Your task to perform on an android device: turn pop-ups on in chrome Image 0: 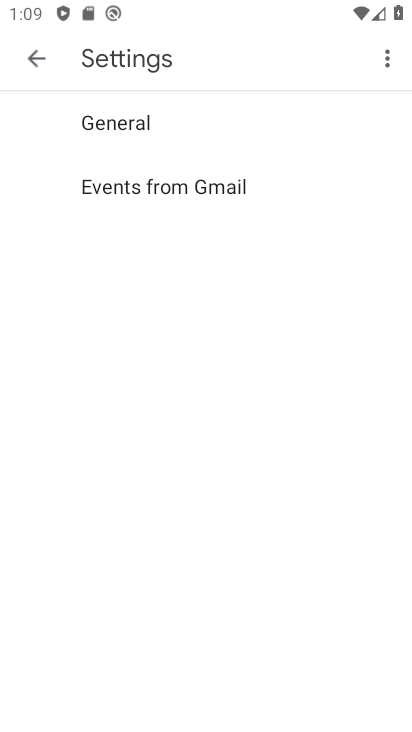
Step 0: press back button
Your task to perform on an android device: turn pop-ups on in chrome Image 1: 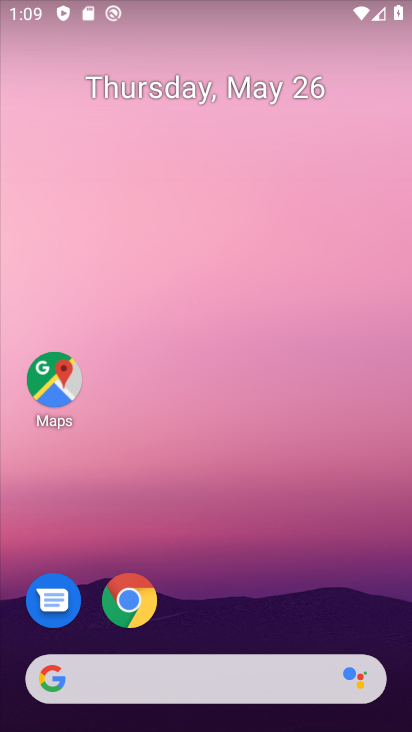
Step 1: click (128, 601)
Your task to perform on an android device: turn pop-ups on in chrome Image 2: 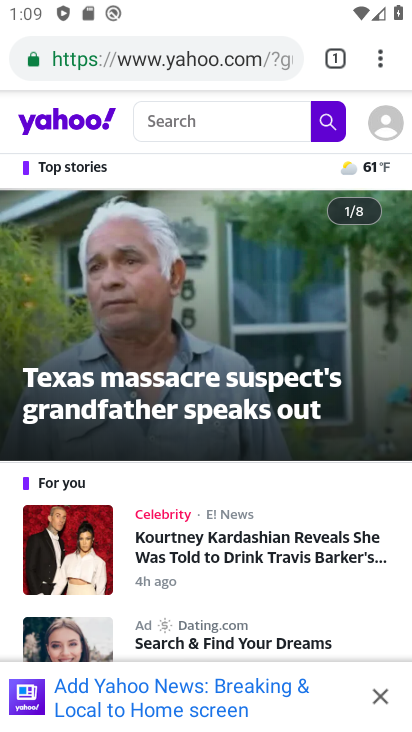
Step 2: click (382, 58)
Your task to perform on an android device: turn pop-ups on in chrome Image 3: 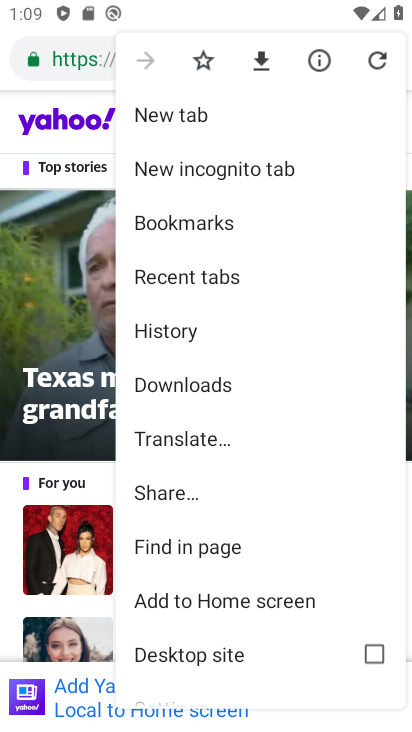
Step 3: drag from (167, 519) to (234, 402)
Your task to perform on an android device: turn pop-ups on in chrome Image 4: 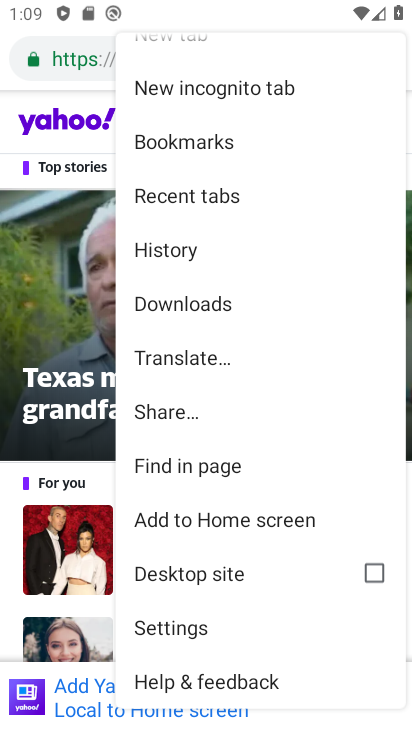
Step 4: click (186, 624)
Your task to perform on an android device: turn pop-ups on in chrome Image 5: 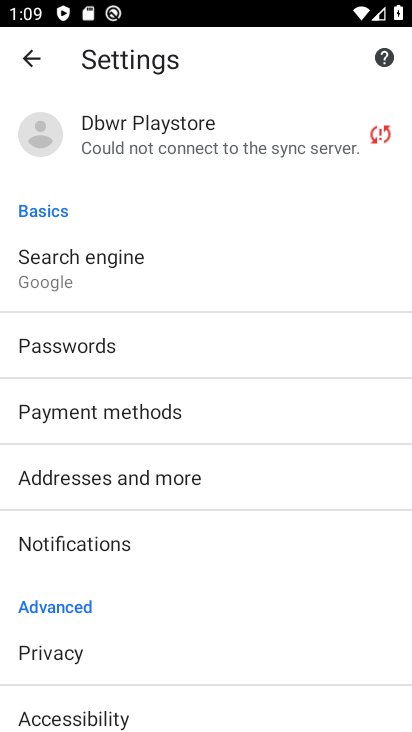
Step 5: drag from (117, 560) to (162, 434)
Your task to perform on an android device: turn pop-ups on in chrome Image 6: 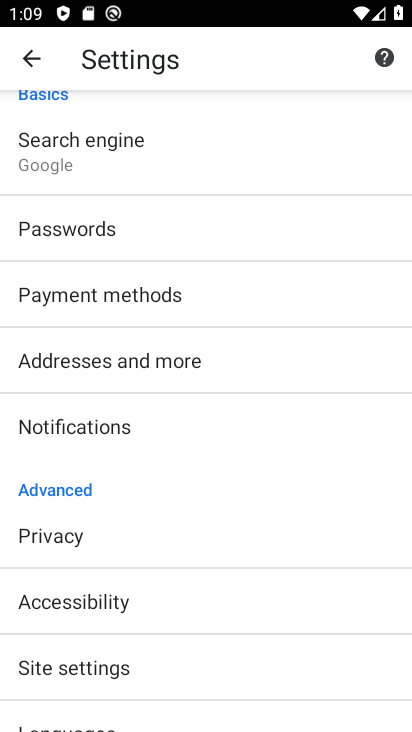
Step 6: drag from (112, 551) to (128, 415)
Your task to perform on an android device: turn pop-ups on in chrome Image 7: 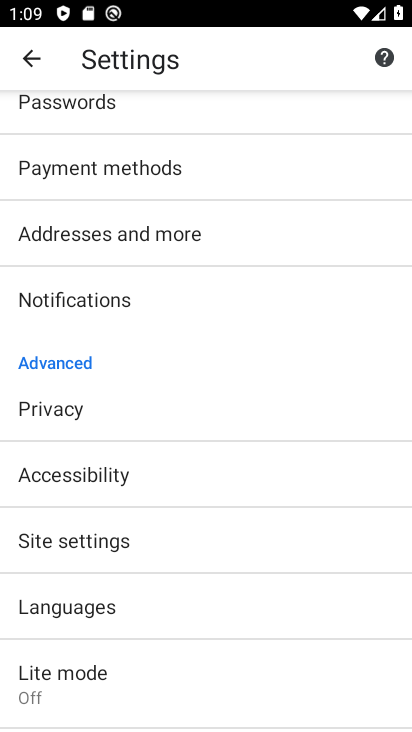
Step 7: click (75, 534)
Your task to perform on an android device: turn pop-ups on in chrome Image 8: 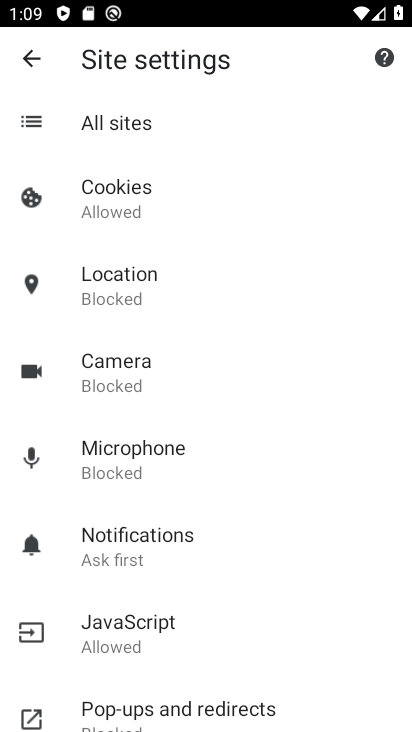
Step 8: drag from (126, 655) to (159, 535)
Your task to perform on an android device: turn pop-ups on in chrome Image 9: 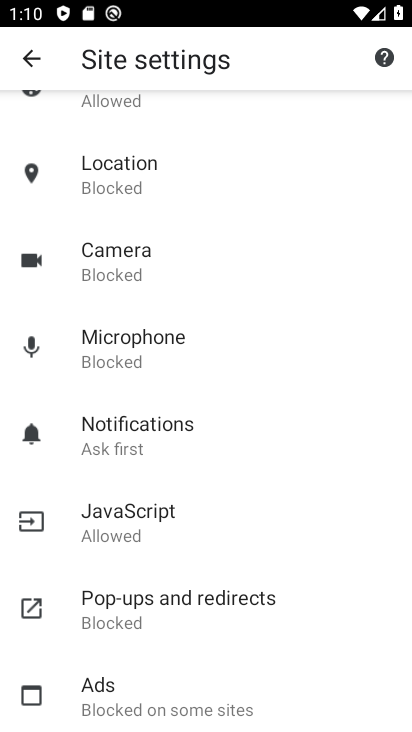
Step 9: click (119, 613)
Your task to perform on an android device: turn pop-ups on in chrome Image 10: 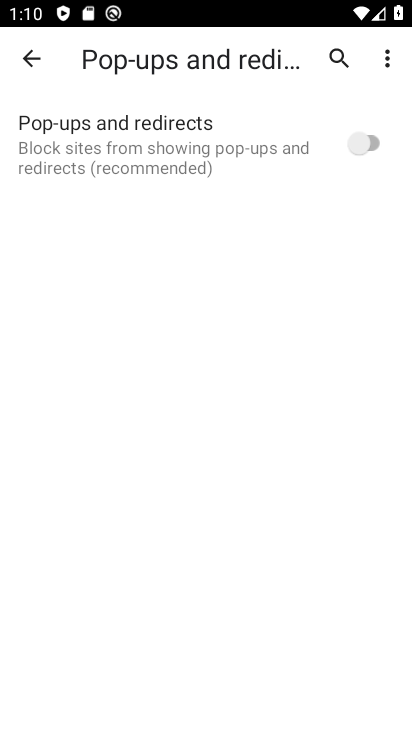
Step 10: click (352, 142)
Your task to perform on an android device: turn pop-ups on in chrome Image 11: 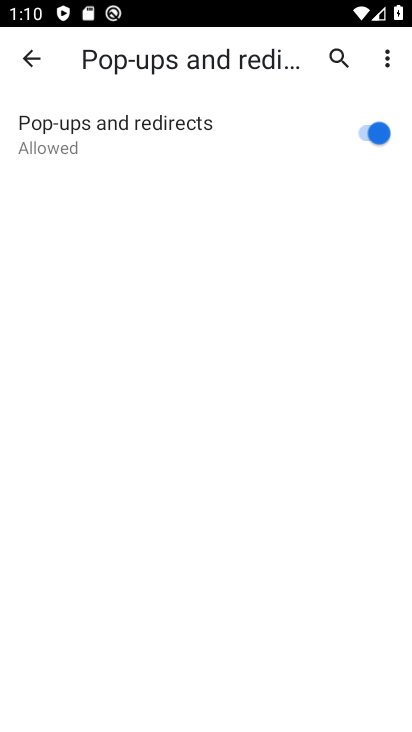
Step 11: task complete